Your task to perform on an android device: Go to eBay Image 0: 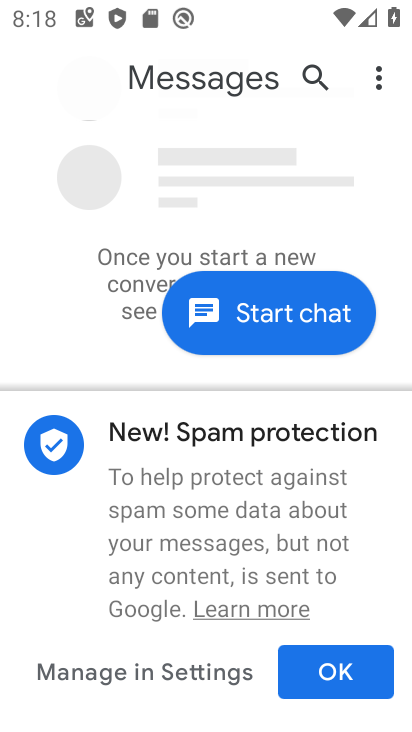
Step 0: press home button
Your task to perform on an android device: Go to eBay Image 1: 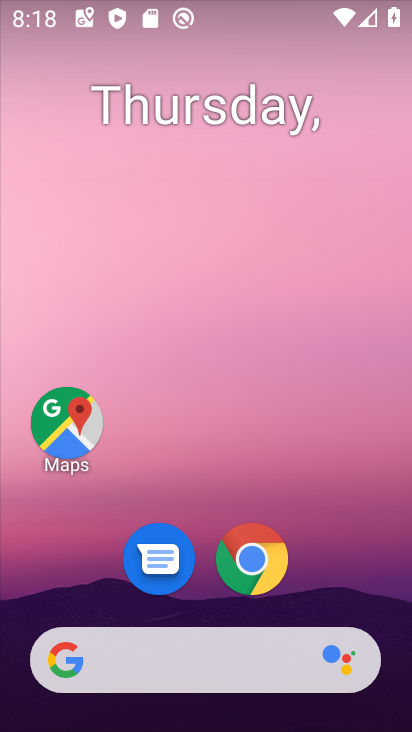
Step 1: click (255, 556)
Your task to perform on an android device: Go to eBay Image 2: 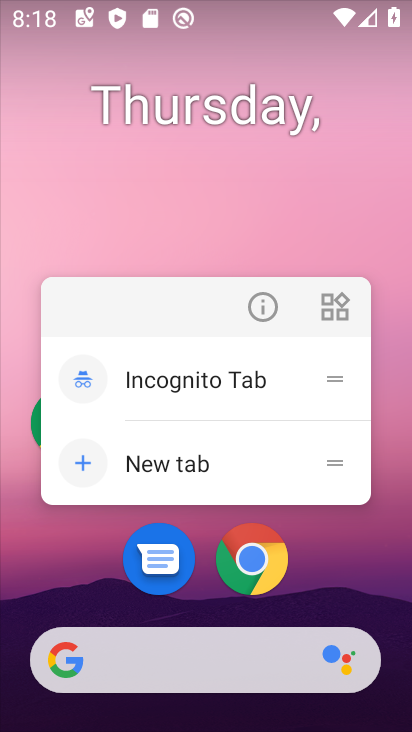
Step 2: click (261, 569)
Your task to perform on an android device: Go to eBay Image 3: 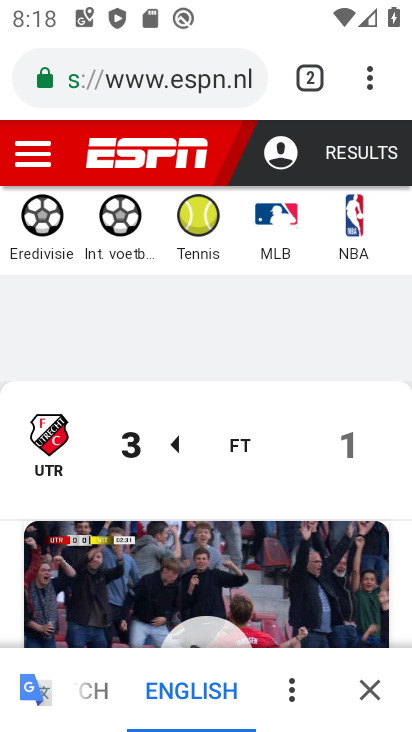
Step 3: click (300, 89)
Your task to perform on an android device: Go to eBay Image 4: 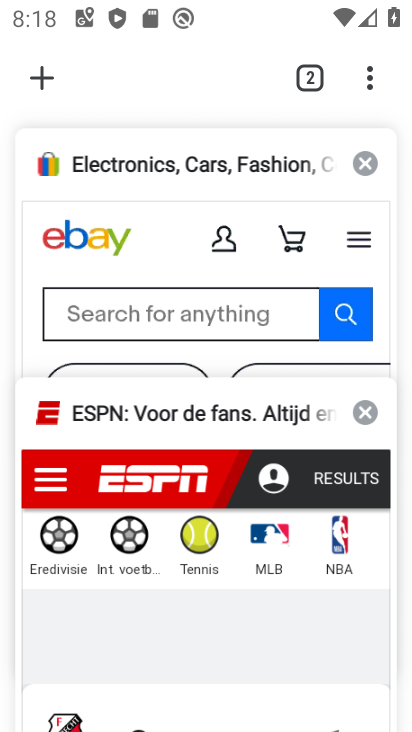
Step 4: click (128, 183)
Your task to perform on an android device: Go to eBay Image 5: 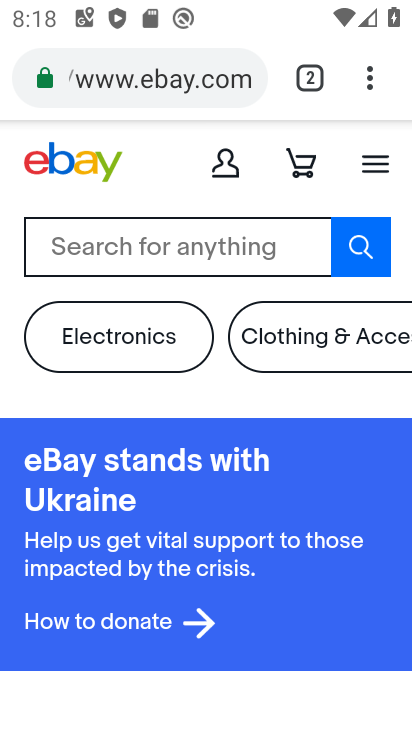
Step 5: task complete